Your task to perform on an android device: change the clock display to show seconds Image 0: 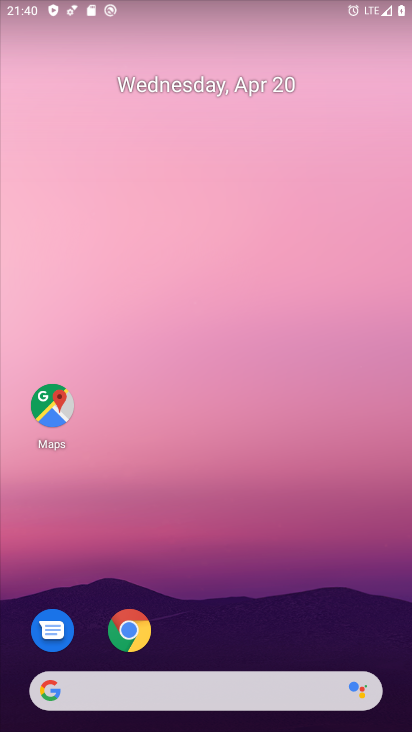
Step 0: drag from (297, 424) to (248, 84)
Your task to perform on an android device: change the clock display to show seconds Image 1: 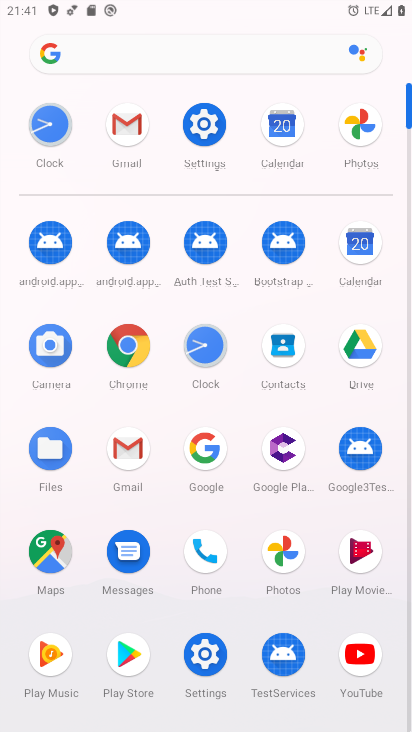
Step 1: click (72, 115)
Your task to perform on an android device: change the clock display to show seconds Image 2: 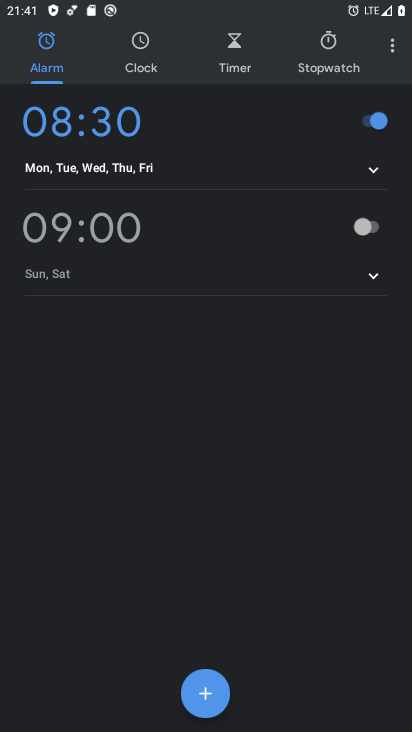
Step 2: click (395, 36)
Your task to perform on an android device: change the clock display to show seconds Image 3: 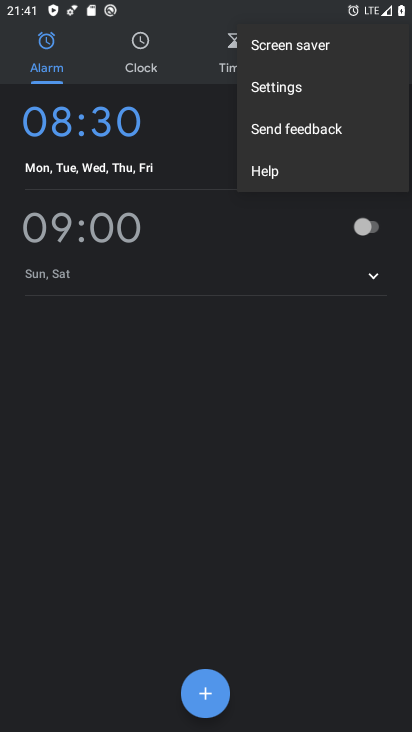
Step 3: click (314, 86)
Your task to perform on an android device: change the clock display to show seconds Image 4: 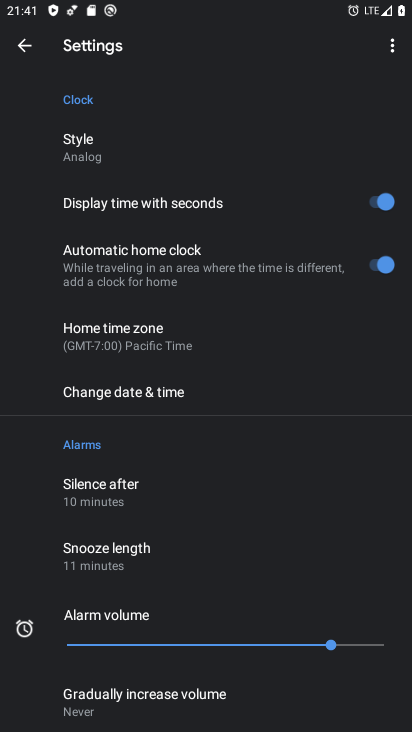
Step 4: click (379, 208)
Your task to perform on an android device: change the clock display to show seconds Image 5: 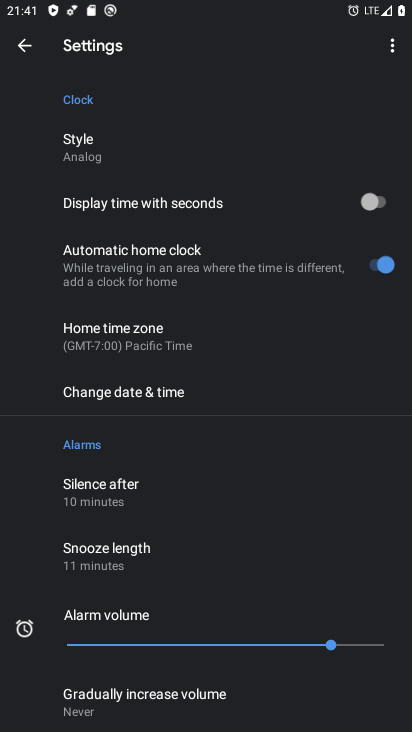
Step 5: task complete